Your task to perform on an android device: Open Wikipedia Image 0: 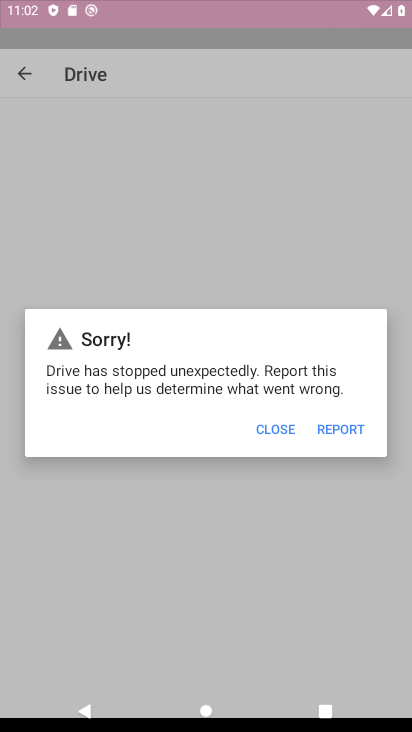
Step 0: click (195, 667)
Your task to perform on an android device: Open Wikipedia Image 1: 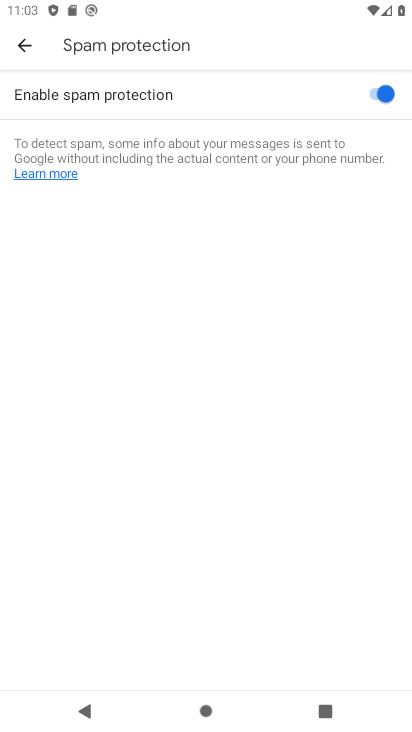
Step 1: press home button
Your task to perform on an android device: Open Wikipedia Image 2: 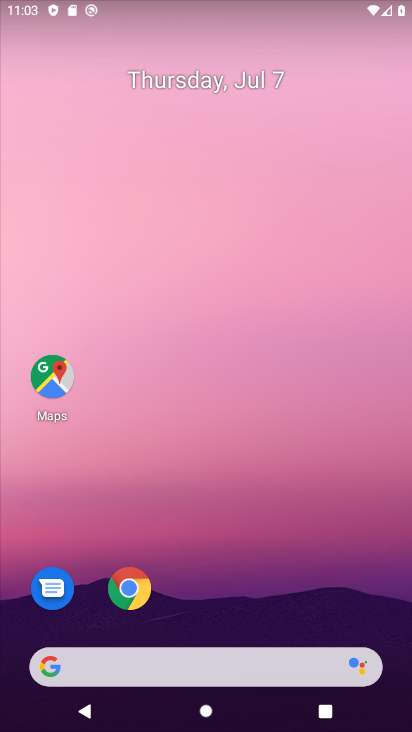
Step 2: click (132, 592)
Your task to perform on an android device: Open Wikipedia Image 3: 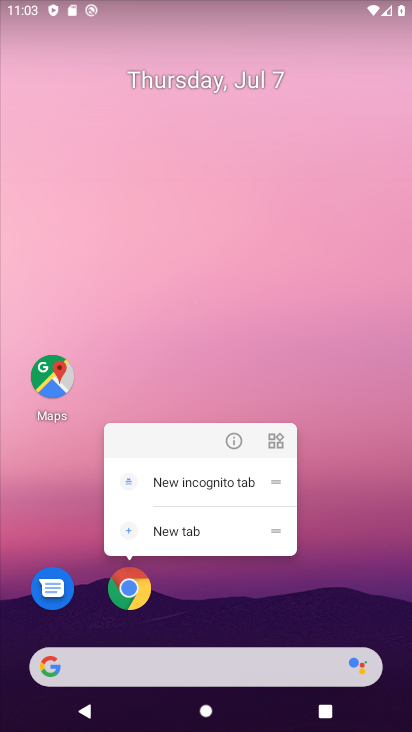
Step 3: click (132, 592)
Your task to perform on an android device: Open Wikipedia Image 4: 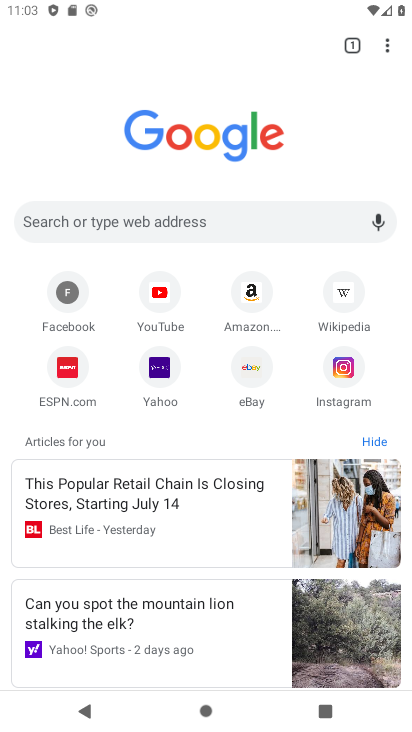
Step 4: click (354, 303)
Your task to perform on an android device: Open Wikipedia Image 5: 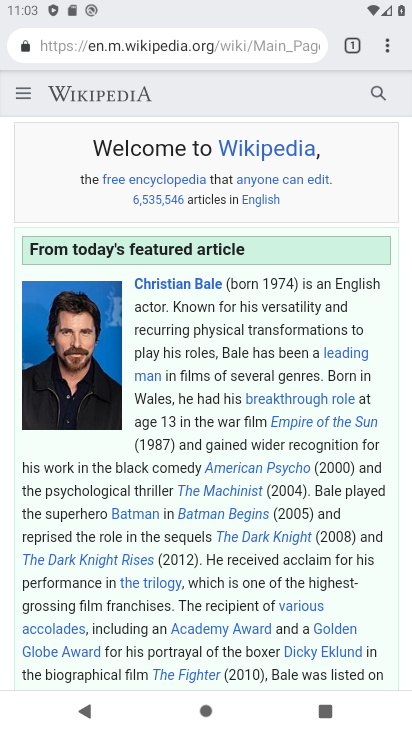
Step 5: task complete